Your task to perform on an android device: check storage Image 0: 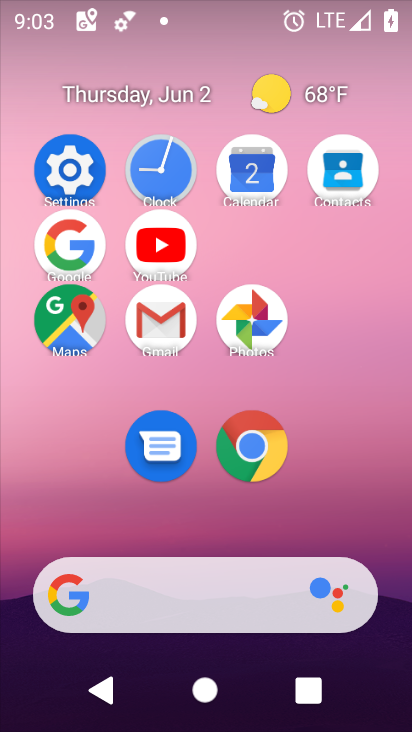
Step 0: click (72, 151)
Your task to perform on an android device: check storage Image 1: 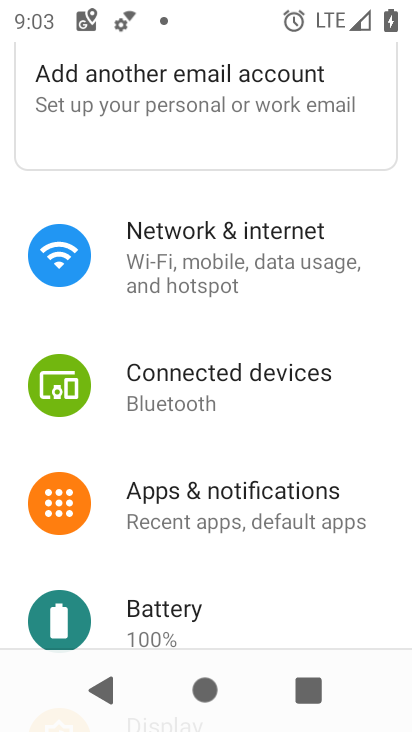
Step 1: drag from (272, 585) to (226, 127)
Your task to perform on an android device: check storage Image 2: 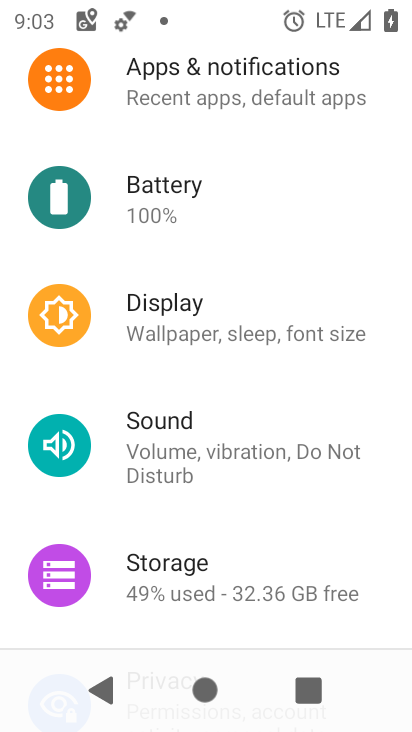
Step 2: click (264, 571)
Your task to perform on an android device: check storage Image 3: 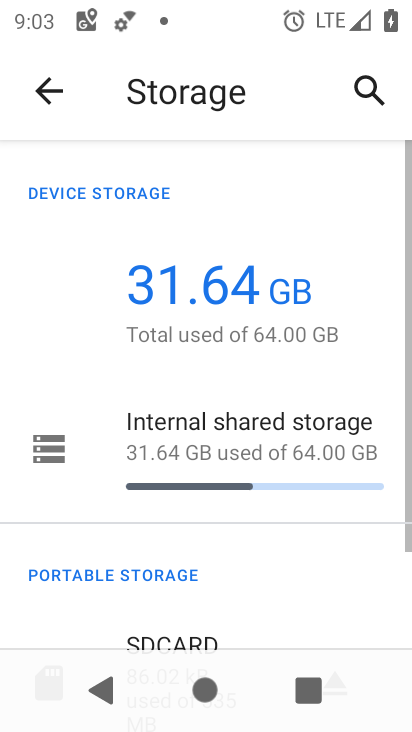
Step 3: task complete